Your task to perform on an android device: change the upload size in google photos Image 0: 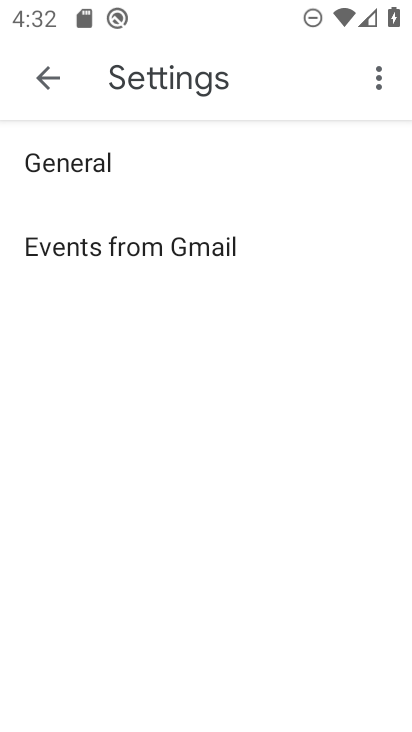
Step 0: press back button
Your task to perform on an android device: change the upload size in google photos Image 1: 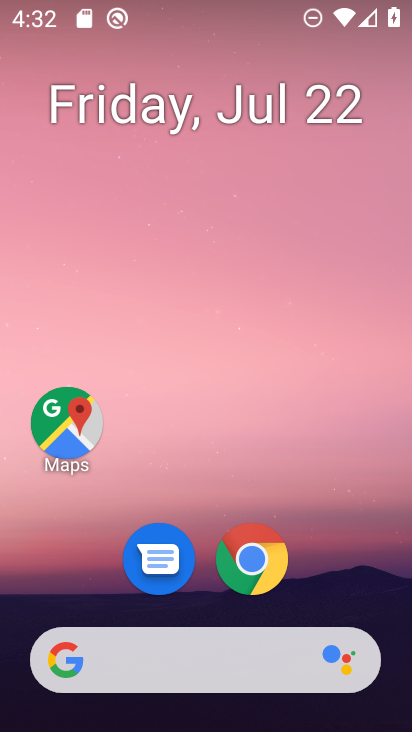
Step 1: drag from (83, 579) to (251, 10)
Your task to perform on an android device: change the upload size in google photos Image 2: 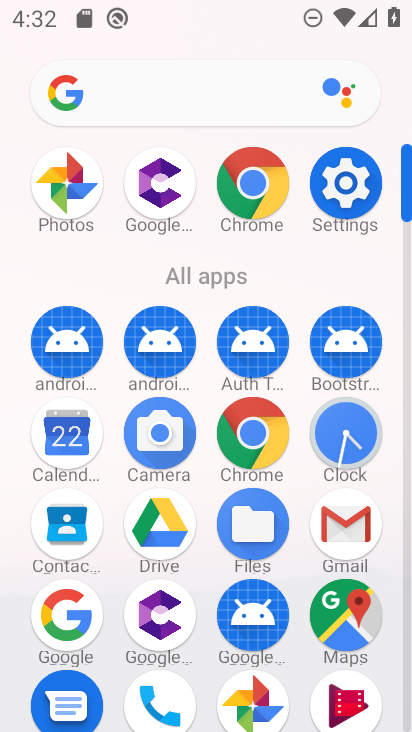
Step 2: click (257, 709)
Your task to perform on an android device: change the upload size in google photos Image 3: 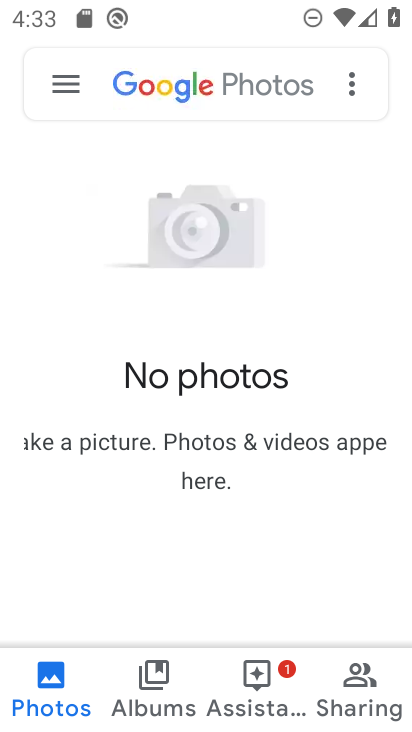
Step 3: click (63, 100)
Your task to perform on an android device: change the upload size in google photos Image 4: 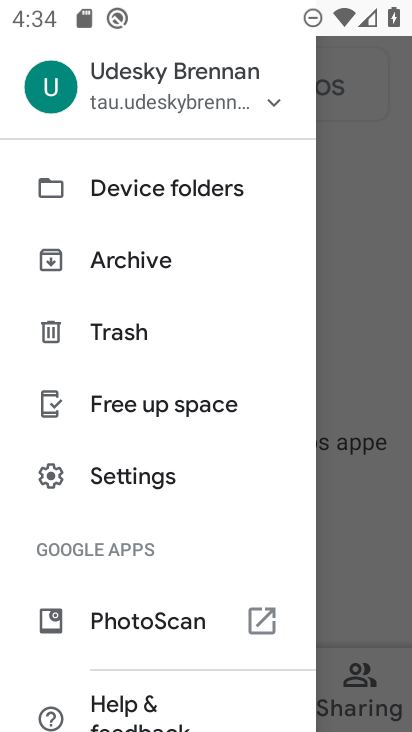
Step 4: click (131, 468)
Your task to perform on an android device: change the upload size in google photos Image 5: 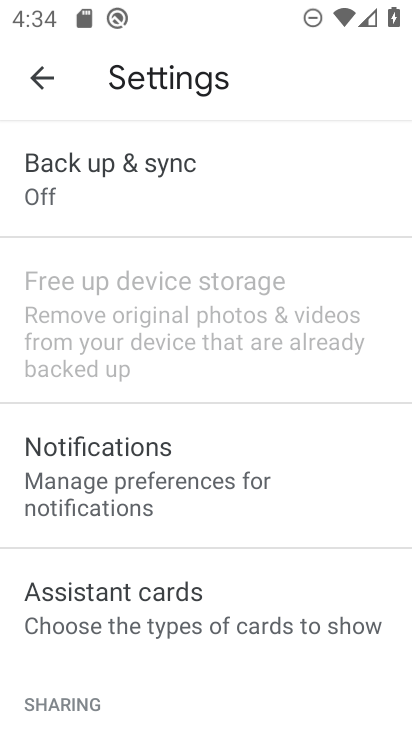
Step 5: click (210, 180)
Your task to perform on an android device: change the upload size in google photos Image 6: 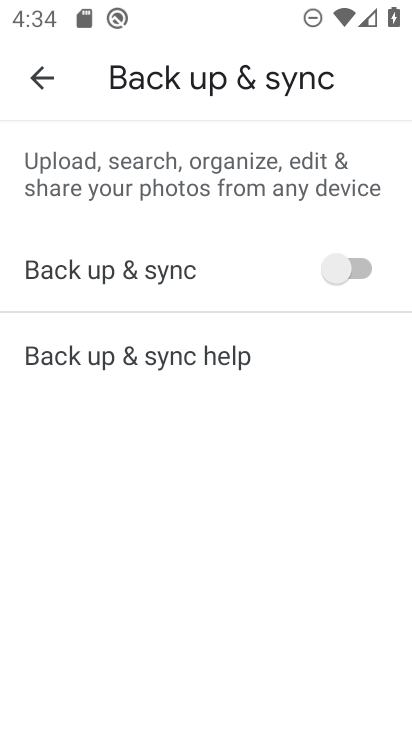
Step 6: task complete